Your task to perform on an android device: Open the phone app and click the voicemail tab. Image 0: 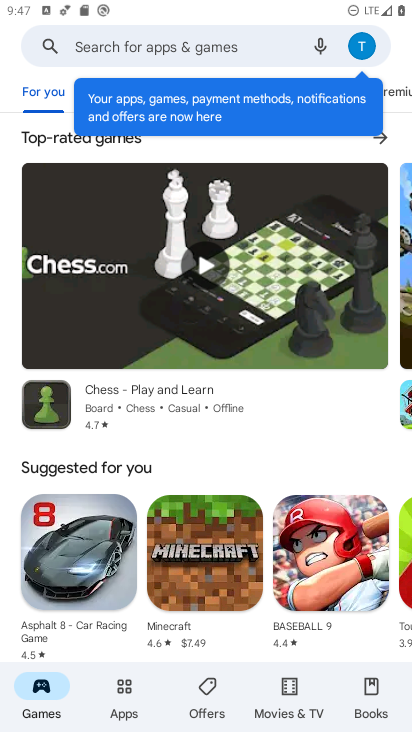
Step 0: press home button
Your task to perform on an android device: Open the phone app and click the voicemail tab. Image 1: 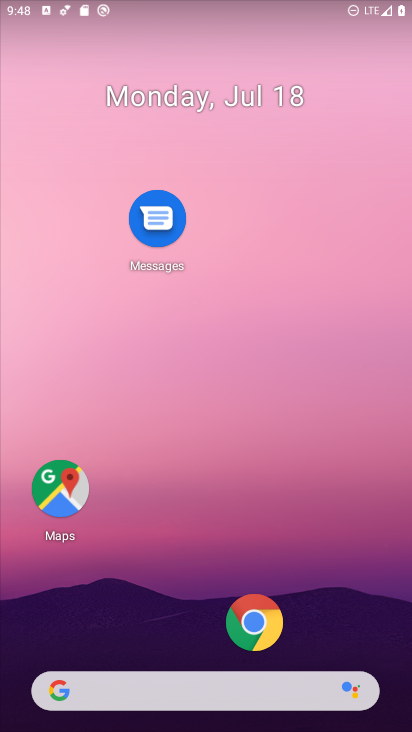
Step 1: drag from (180, 642) to (187, 166)
Your task to perform on an android device: Open the phone app and click the voicemail tab. Image 2: 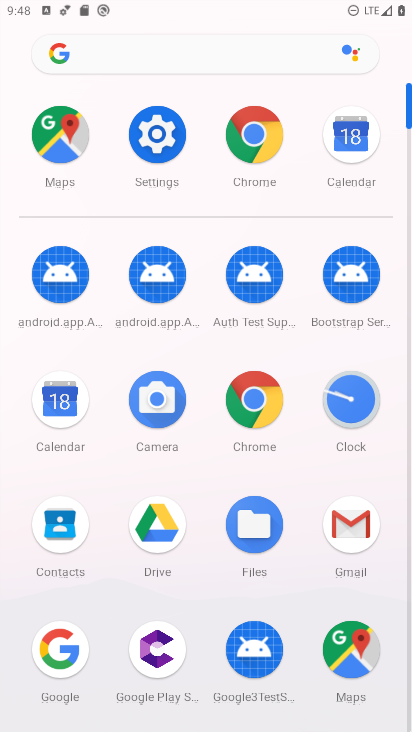
Step 2: drag from (211, 474) to (255, 60)
Your task to perform on an android device: Open the phone app and click the voicemail tab. Image 3: 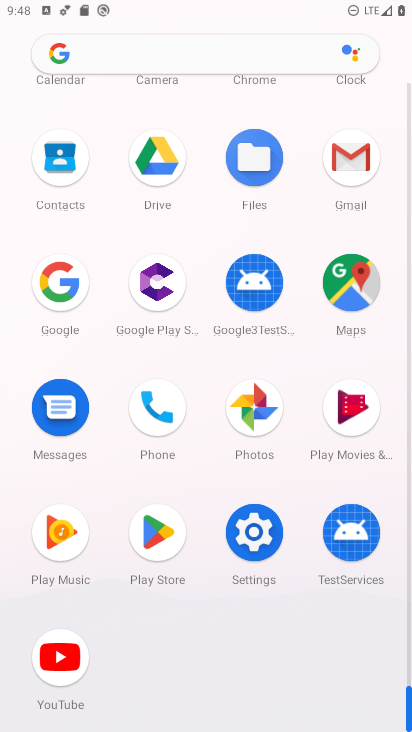
Step 3: click (159, 425)
Your task to perform on an android device: Open the phone app and click the voicemail tab. Image 4: 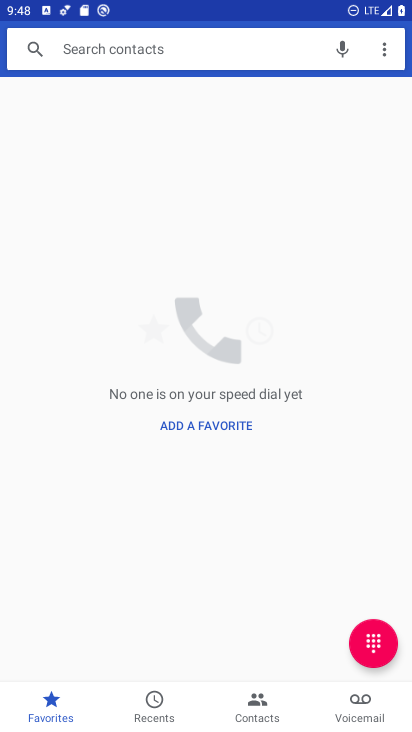
Step 4: click (363, 711)
Your task to perform on an android device: Open the phone app and click the voicemail tab. Image 5: 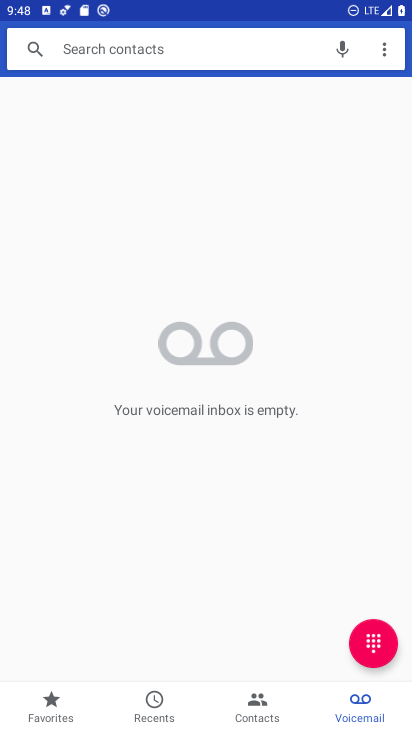
Step 5: task complete